Your task to perform on an android device: turn on notifications settings in the gmail app Image 0: 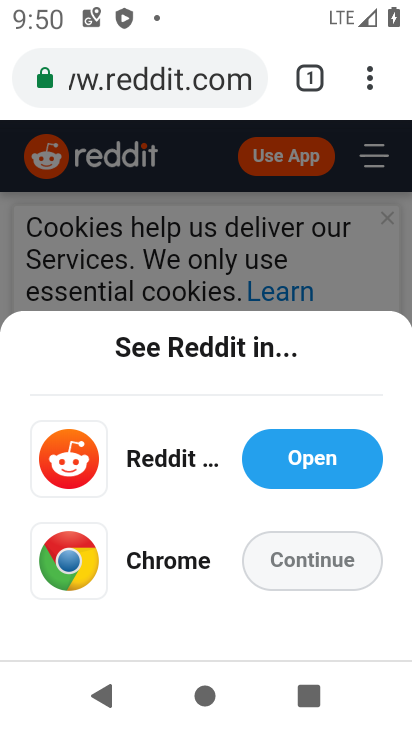
Step 0: press home button
Your task to perform on an android device: turn on notifications settings in the gmail app Image 1: 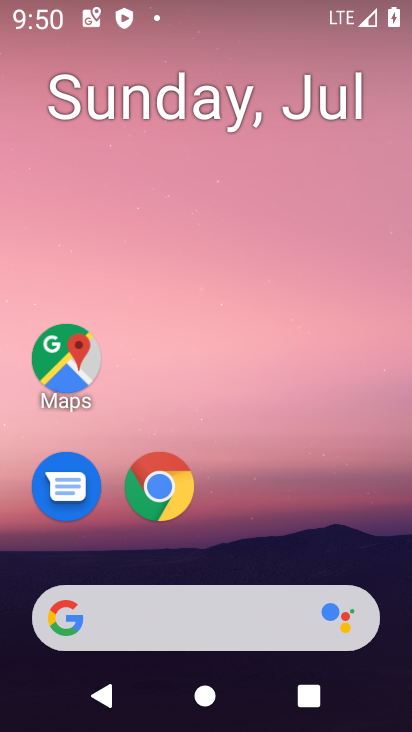
Step 1: drag from (365, 521) to (360, 57)
Your task to perform on an android device: turn on notifications settings in the gmail app Image 2: 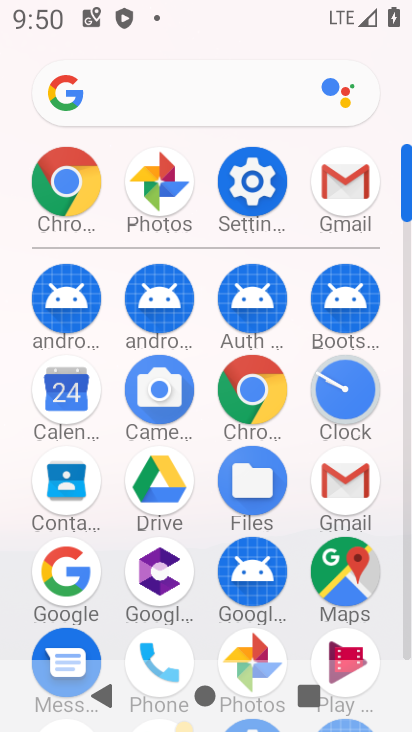
Step 2: click (347, 481)
Your task to perform on an android device: turn on notifications settings in the gmail app Image 3: 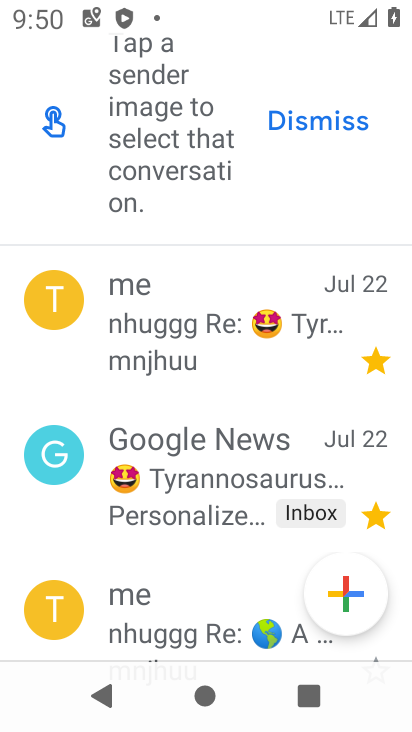
Step 3: drag from (294, 146) to (300, 360)
Your task to perform on an android device: turn on notifications settings in the gmail app Image 4: 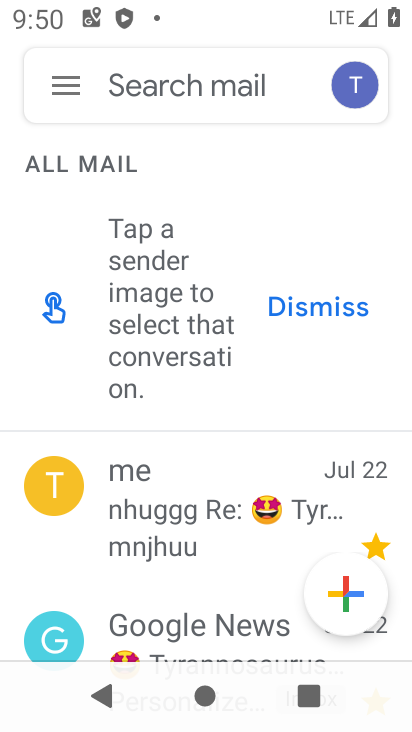
Step 4: click (53, 86)
Your task to perform on an android device: turn on notifications settings in the gmail app Image 5: 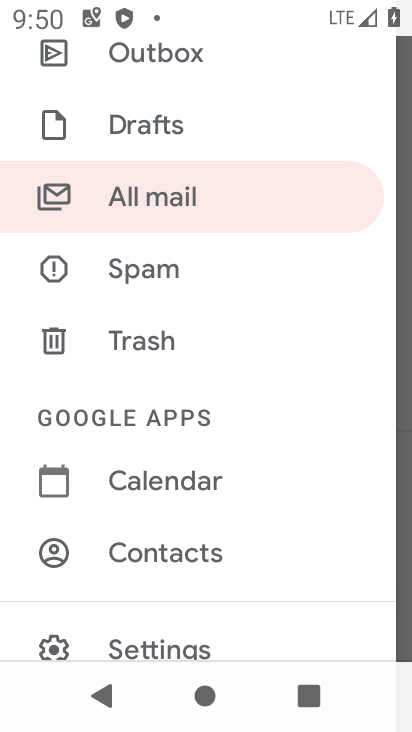
Step 5: drag from (317, 530) to (324, 315)
Your task to perform on an android device: turn on notifications settings in the gmail app Image 6: 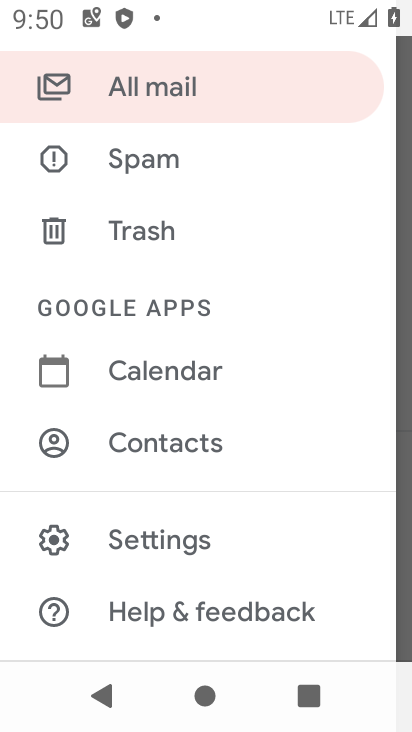
Step 6: click (280, 537)
Your task to perform on an android device: turn on notifications settings in the gmail app Image 7: 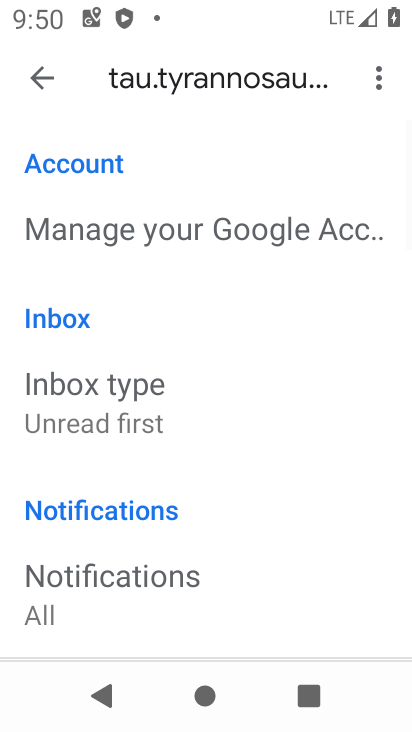
Step 7: drag from (316, 511) to (316, 436)
Your task to perform on an android device: turn on notifications settings in the gmail app Image 8: 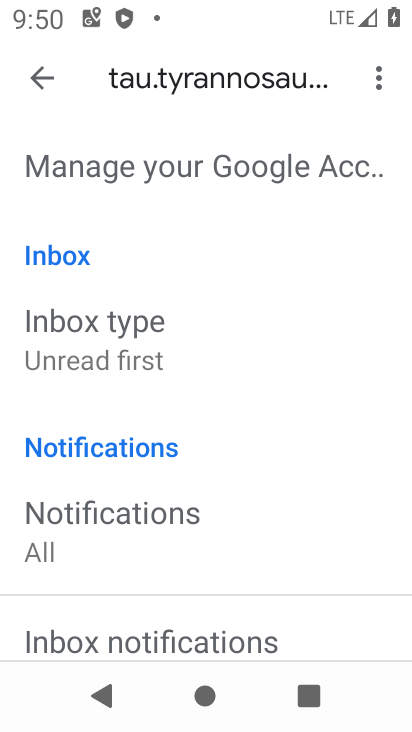
Step 8: drag from (313, 530) to (311, 413)
Your task to perform on an android device: turn on notifications settings in the gmail app Image 9: 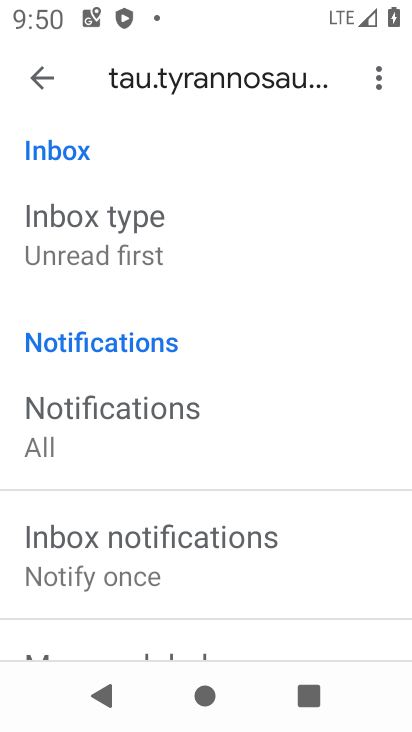
Step 9: drag from (310, 578) to (314, 426)
Your task to perform on an android device: turn on notifications settings in the gmail app Image 10: 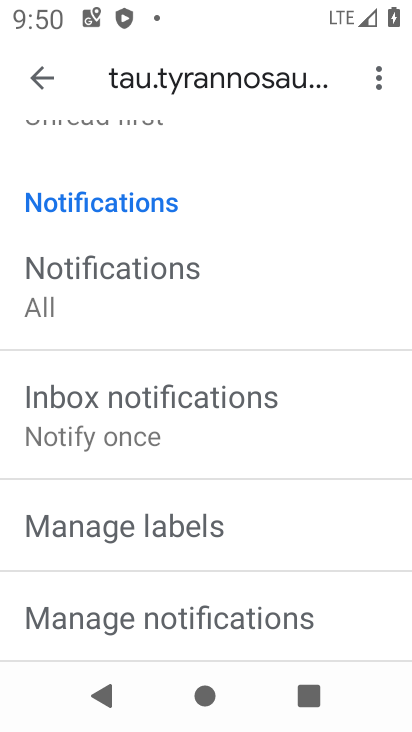
Step 10: drag from (317, 571) to (310, 426)
Your task to perform on an android device: turn on notifications settings in the gmail app Image 11: 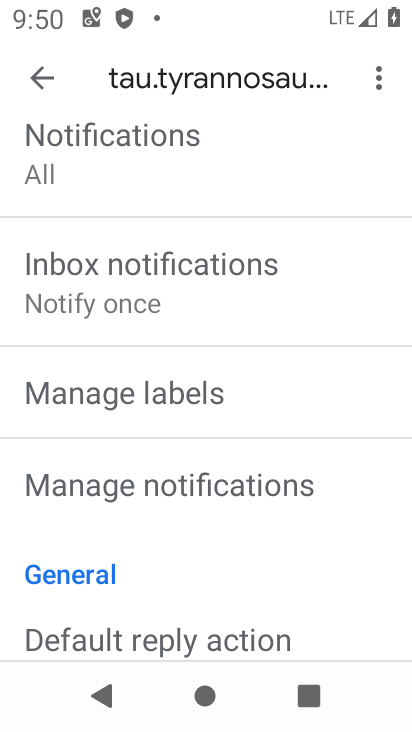
Step 11: drag from (315, 567) to (306, 389)
Your task to perform on an android device: turn on notifications settings in the gmail app Image 12: 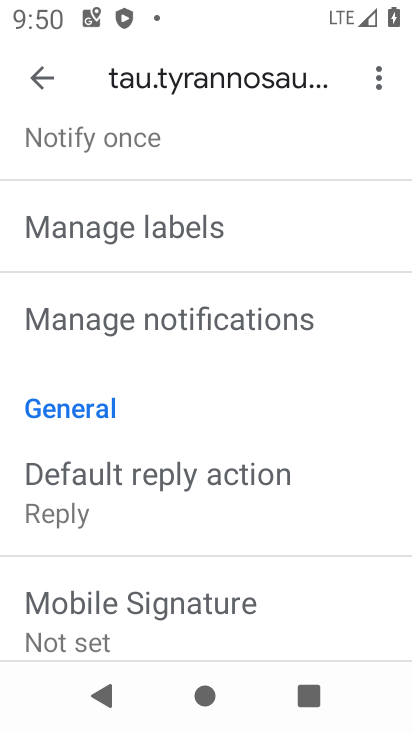
Step 12: click (319, 320)
Your task to perform on an android device: turn on notifications settings in the gmail app Image 13: 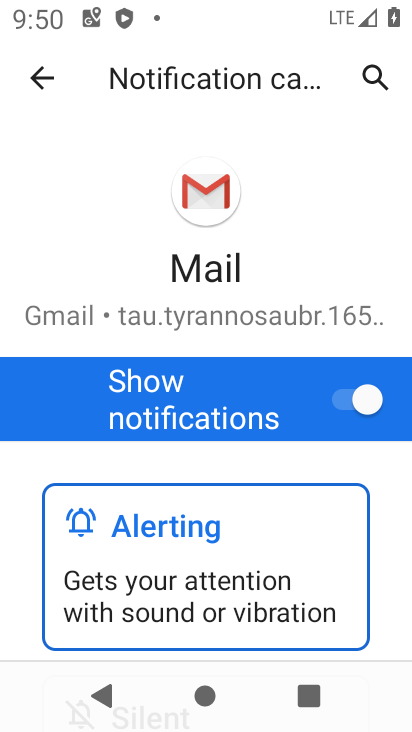
Step 13: task complete